Your task to perform on an android device: Go to Android settings Image 0: 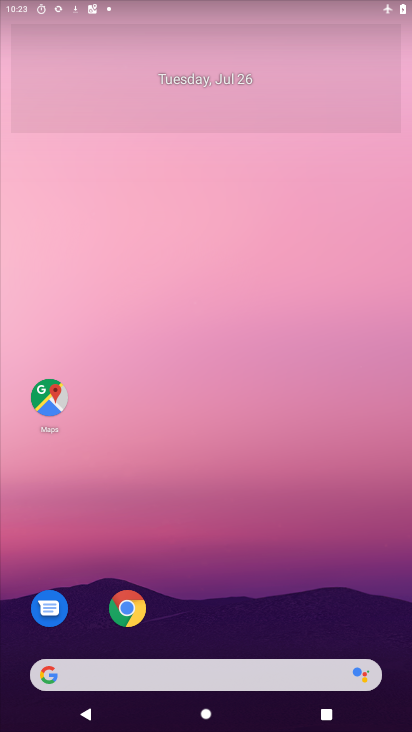
Step 0: drag from (170, 618) to (181, 116)
Your task to perform on an android device: Go to Android settings Image 1: 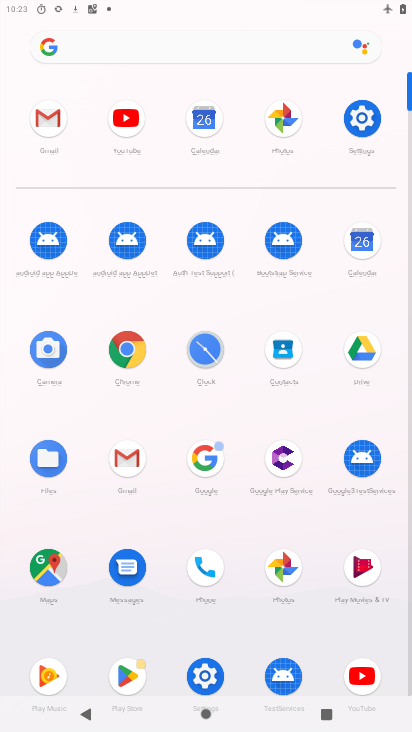
Step 1: click (352, 123)
Your task to perform on an android device: Go to Android settings Image 2: 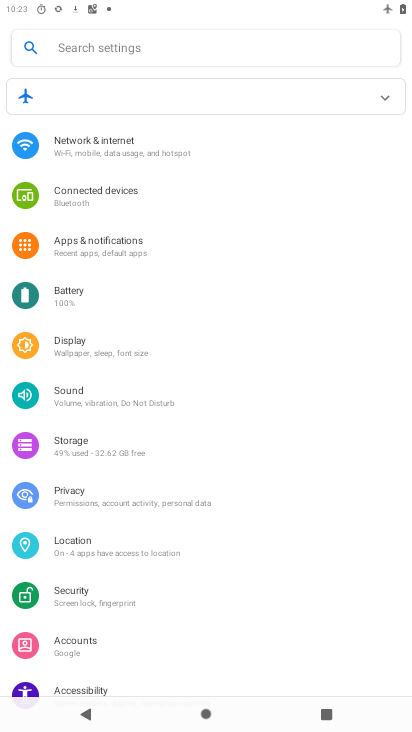
Step 2: task complete